Your task to perform on an android device: Open calendar and show me the first week of next month Image 0: 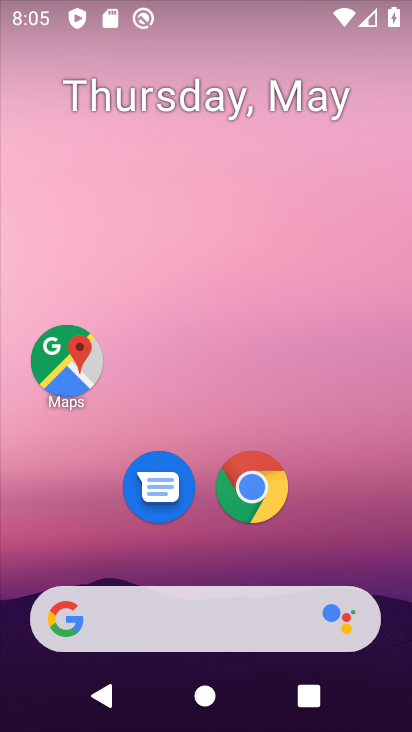
Step 0: drag from (226, 567) to (402, 38)
Your task to perform on an android device: Open calendar and show me the first week of next month Image 1: 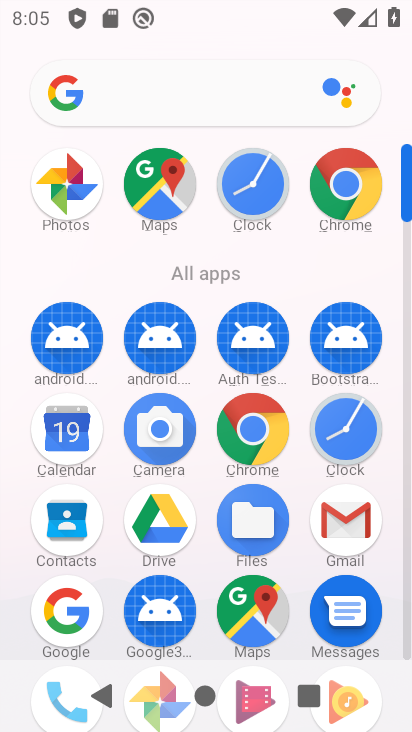
Step 1: click (73, 445)
Your task to perform on an android device: Open calendar and show me the first week of next month Image 2: 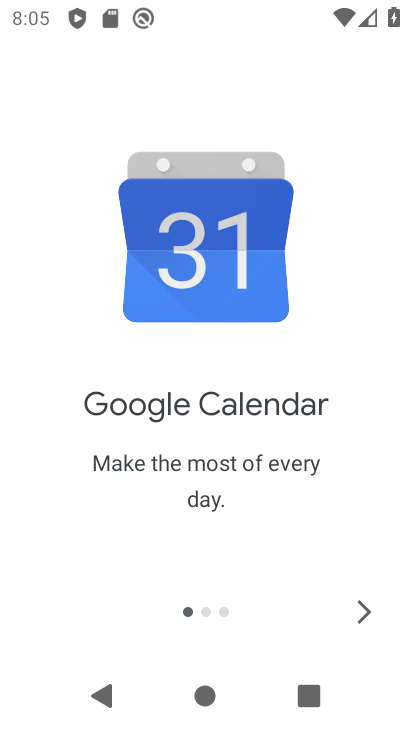
Step 2: click (368, 603)
Your task to perform on an android device: Open calendar and show me the first week of next month Image 3: 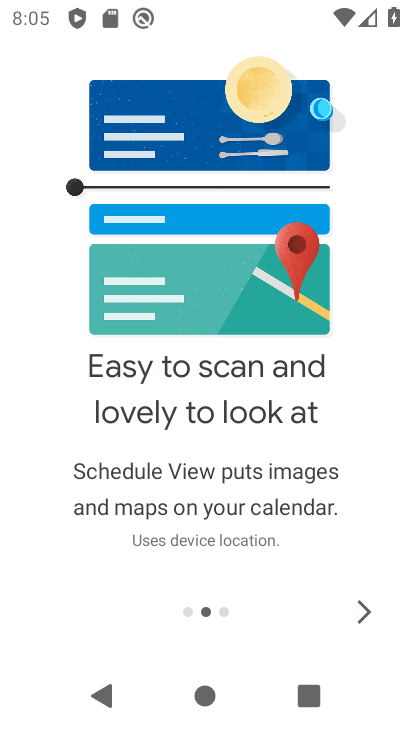
Step 3: click (367, 604)
Your task to perform on an android device: Open calendar and show me the first week of next month Image 4: 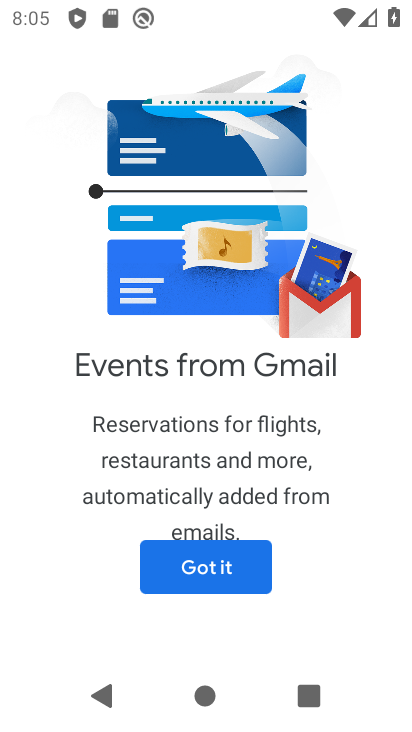
Step 4: click (251, 580)
Your task to perform on an android device: Open calendar and show me the first week of next month Image 5: 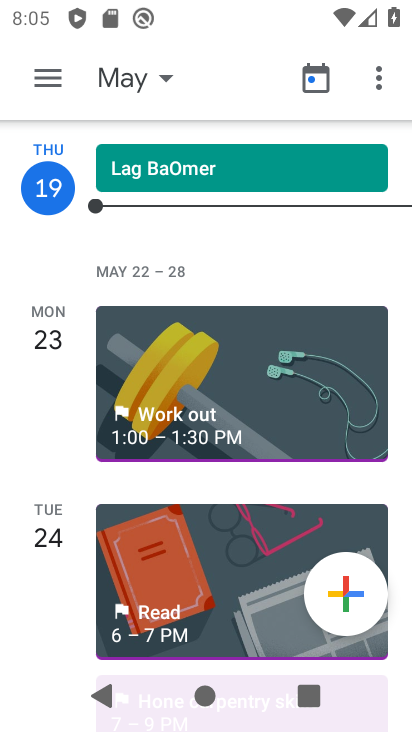
Step 5: click (52, 82)
Your task to perform on an android device: Open calendar and show me the first week of next month Image 6: 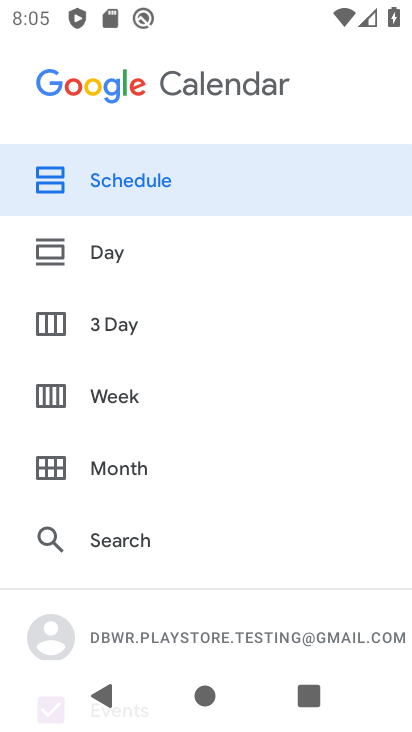
Step 6: click (133, 406)
Your task to perform on an android device: Open calendar and show me the first week of next month Image 7: 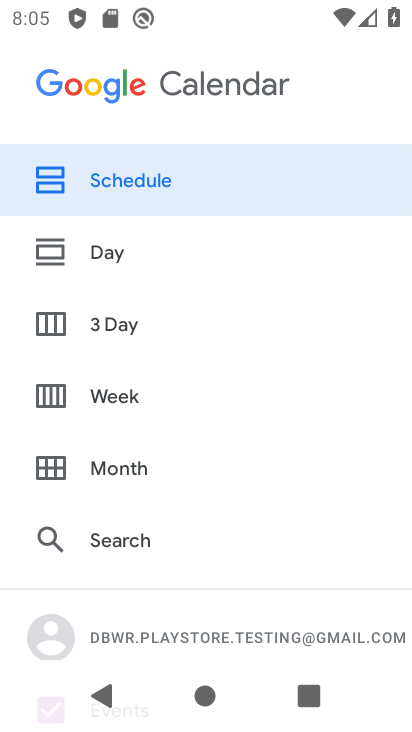
Step 7: click (148, 389)
Your task to perform on an android device: Open calendar and show me the first week of next month Image 8: 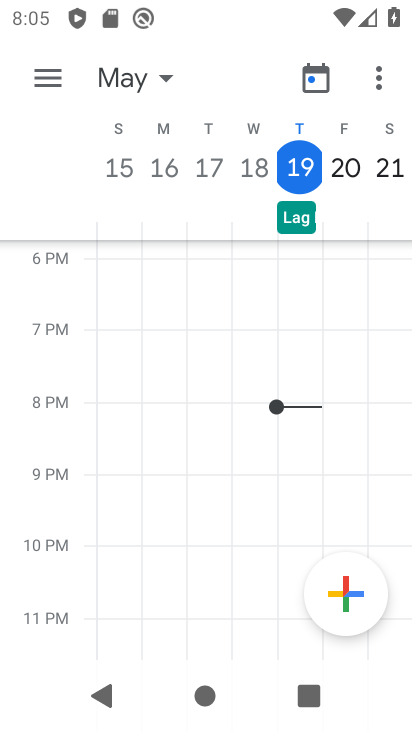
Step 8: task complete